Your task to perform on an android device: allow notifications from all sites in the chrome app Image 0: 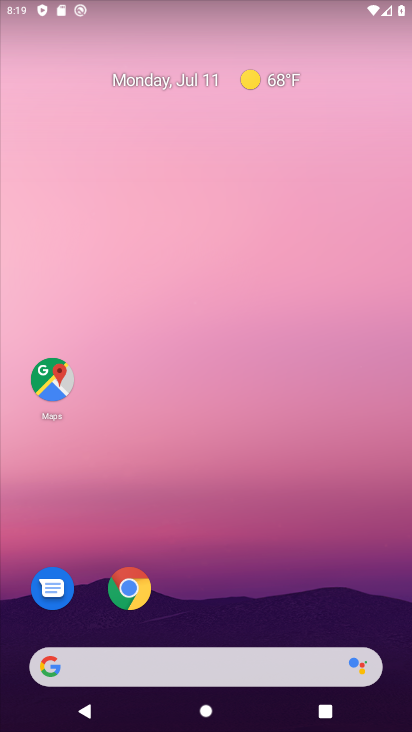
Step 0: drag from (235, 631) to (198, 51)
Your task to perform on an android device: allow notifications from all sites in the chrome app Image 1: 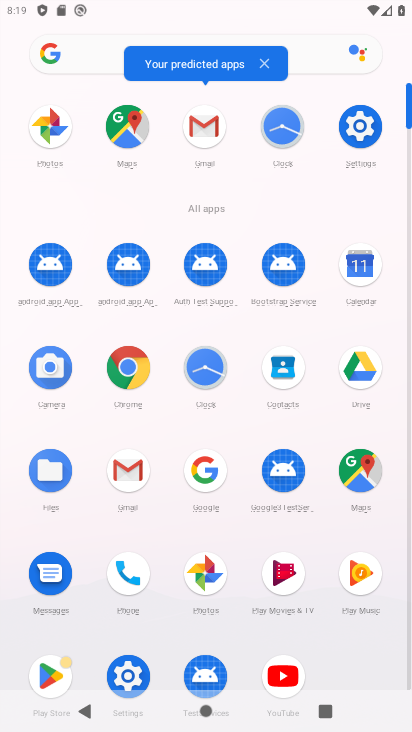
Step 1: click (129, 371)
Your task to perform on an android device: allow notifications from all sites in the chrome app Image 2: 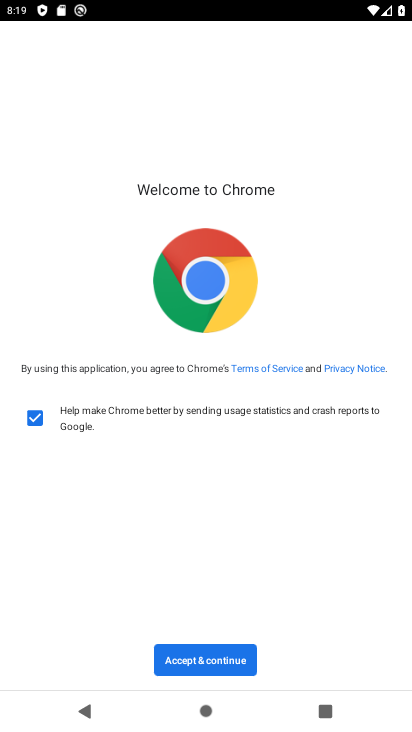
Step 2: click (198, 657)
Your task to perform on an android device: allow notifications from all sites in the chrome app Image 3: 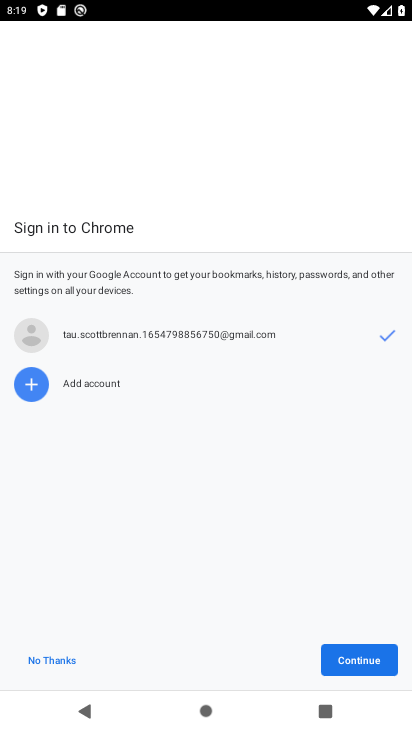
Step 3: click (348, 647)
Your task to perform on an android device: allow notifications from all sites in the chrome app Image 4: 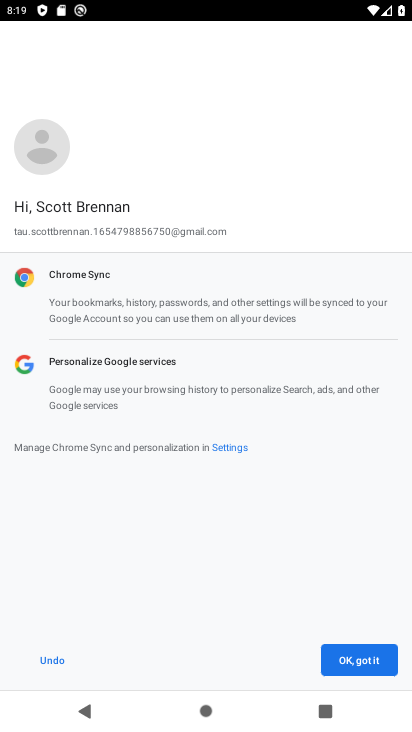
Step 4: click (384, 653)
Your task to perform on an android device: allow notifications from all sites in the chrome app Image 5: 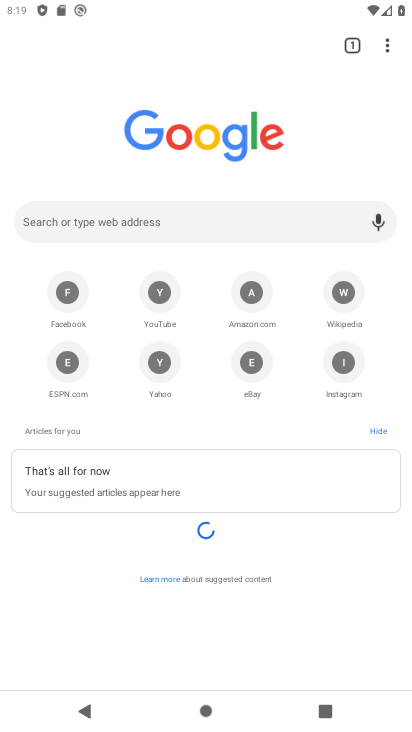
Step 5: drag from (385, 46) to (230, 371)
Your task to perform on an android device: allow notifications from all sites in the chrome app Image 6: 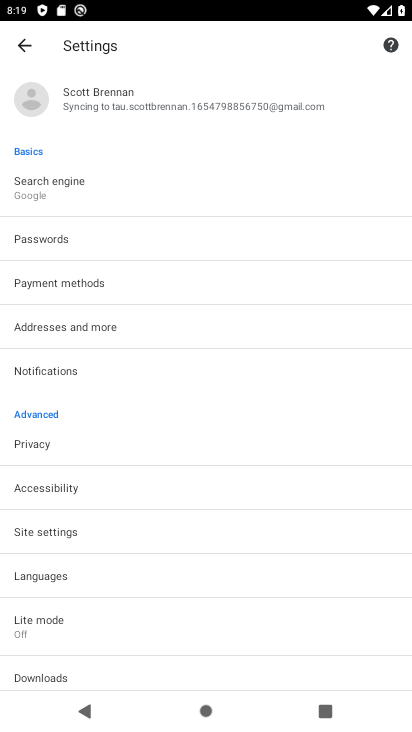
Step 6: drag from (92, 596) to (93, 279)
Your task to perform on an android device: allow notifications from all sites in the chrome app Image 7: 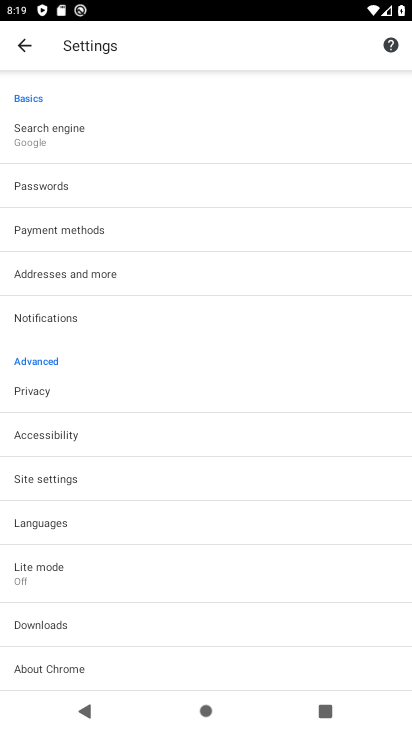
Step 7: click (57, 474)
Your task to perform on an android device: allow notifications from all sites in the chrome app Image 8: 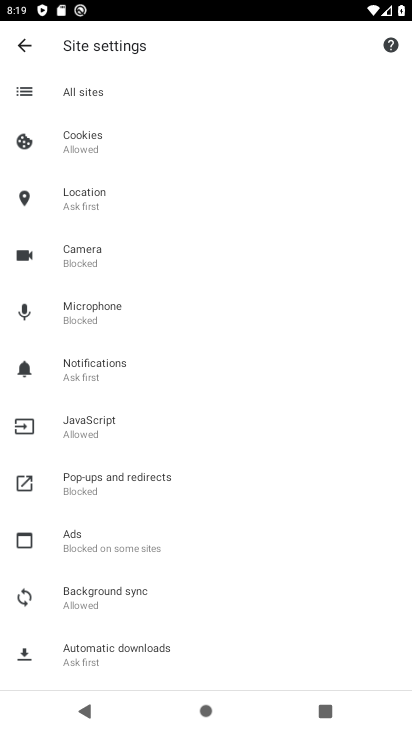
Step 8: drag from (135, 549) to (136, 423)
Your task to perform on an android device: allow notifications from all sites in the chrome app Image 9: 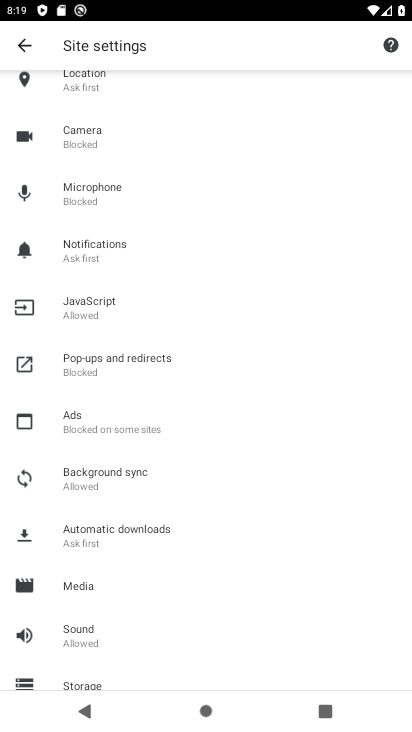
Step 9: click (113, 255)
Your task to perform on an android device: allow notifications from all sites in the chrome app Image 10: 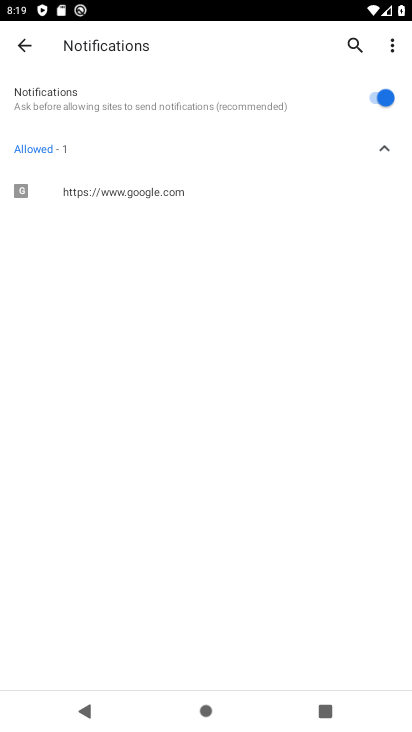
Step 10: task complete